Your task to perform on an android device: turn on showing notifications on the lock screen Image 0: 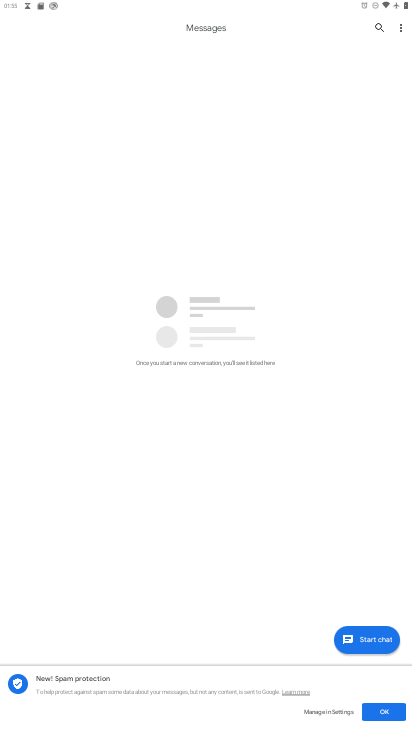
Step 0: press home button
Your task to perform on an android device: turn on showing notifications on the lock screen Image 1: 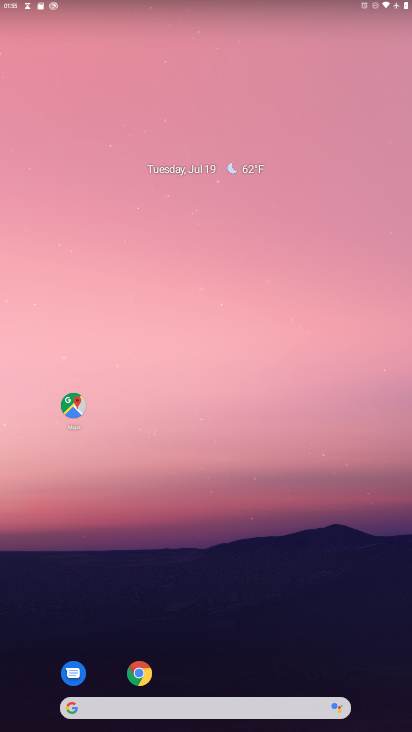
Step 1: drag from (315, 622) to (321, 454)
Your task to perform on an android device: turn on showing notifications on the lock screen Image 2: 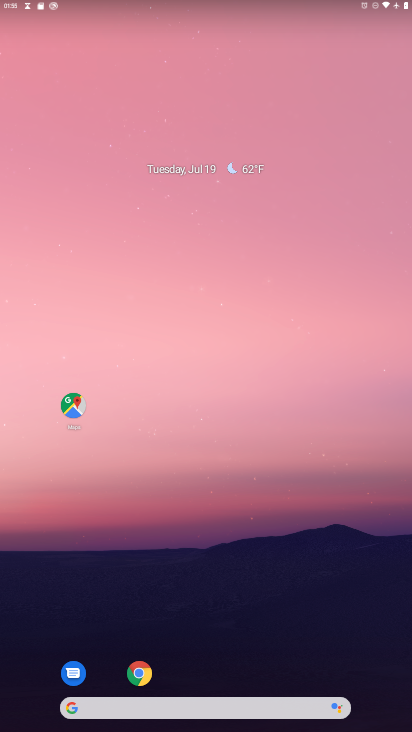
Step 2: drag from (206, 648) to (238, 421)
Your task to perform on an android device: turn on showing notifications on the lock screen Image 3: 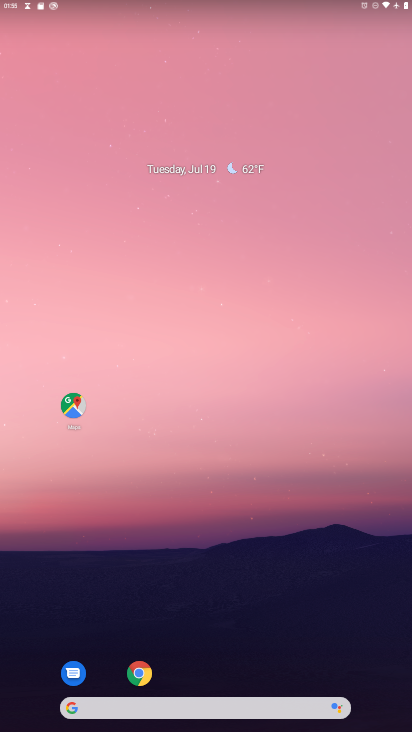
Step 3: drag from (174, 709) to (194, 434)
Your task to perform on an android device: turn on showing notifications on the lock screen Image 4: 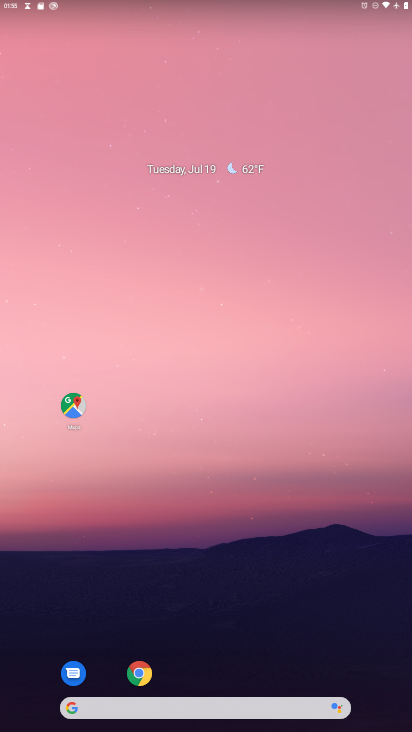
Step 4: drag from (313, 621) to (283, 7)
Your task to perform on an android device: turn on showing notifications on the lock screen Image 5: 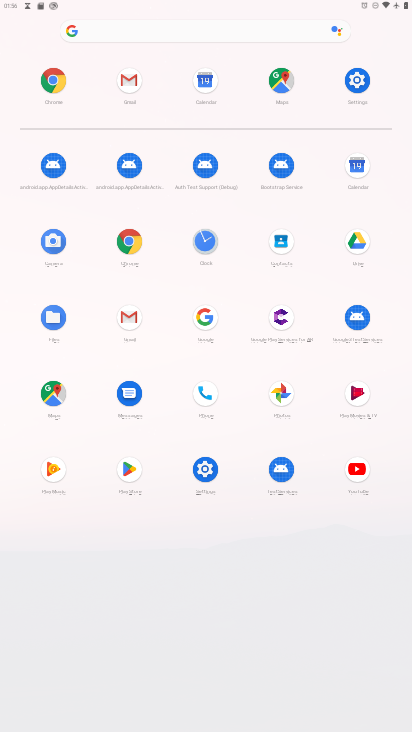
Step 5: click (362, 94)
Your task to perform on an android device: turn on showing notifications on the lock screen Image 6: 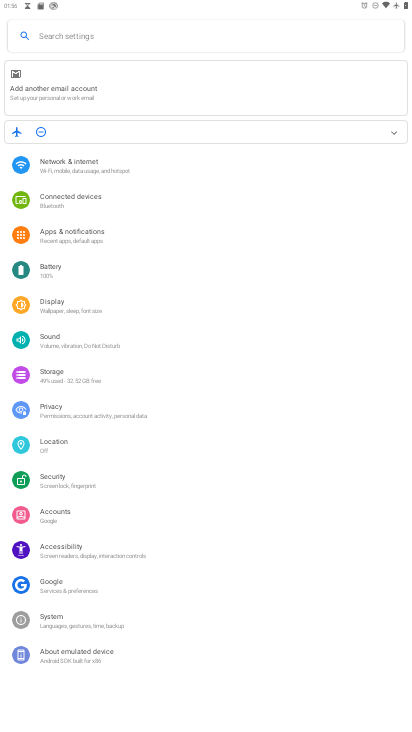
Step 6: click (90, 240)
Your task to perform on an android device: turn on showing notifications on the lock screen Image 7: 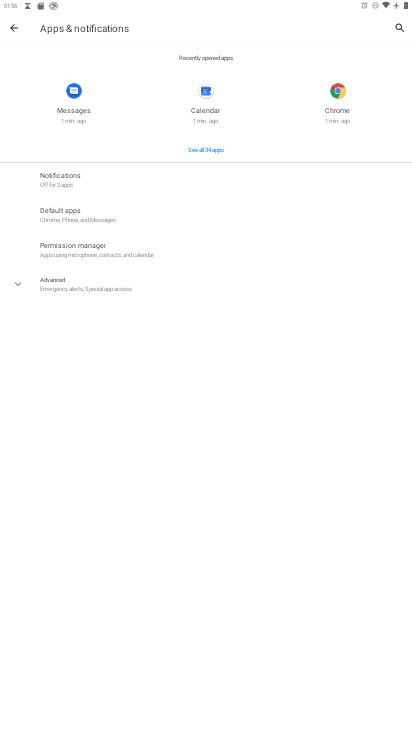
Step 7: click (57, 180)
Your task to perform on an android device: turn on showing notifications on the lock screen Image 8: 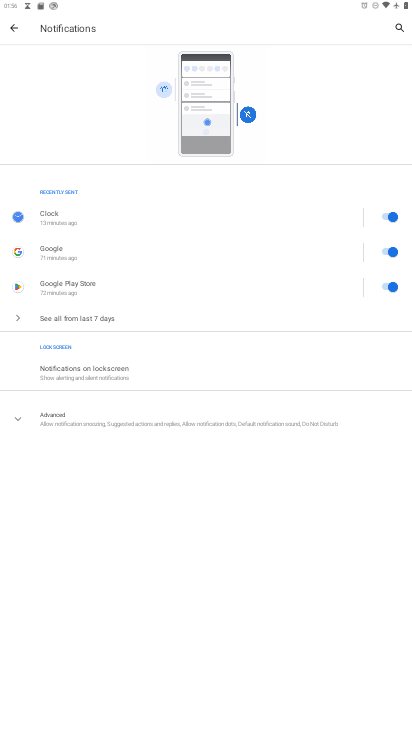
Step 8: click (100, 354)
Your task to perform on an android device: turn on showing notifications on the lock screen Image 9: 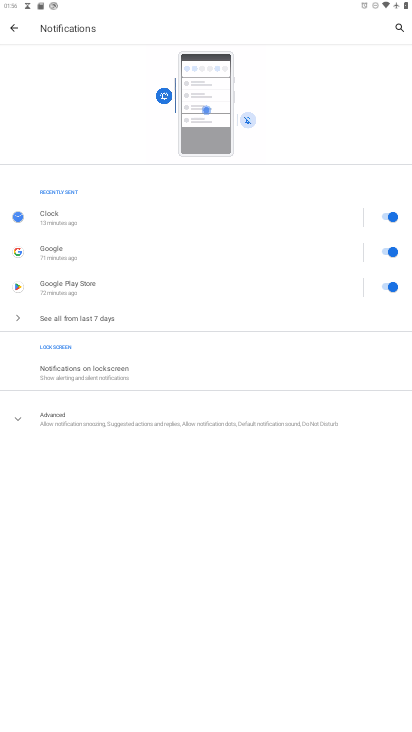
Step 9: click (125, 370)
Your task to perform on an android device: turn on showing notifications on the lock screen Image 10: 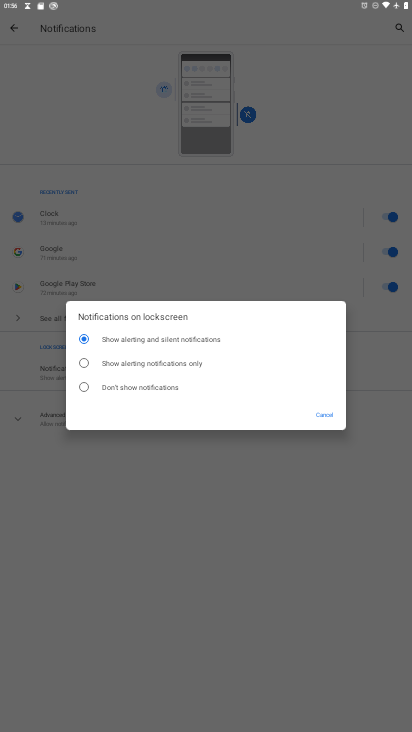
Step 10: task complete